Your task to perform on an android device: Open the map Image 0: 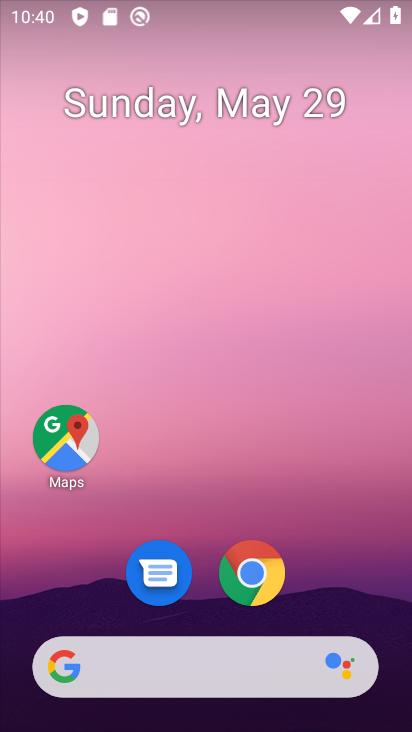
Step 0: click (68, 441)
Your task to perform on an android device: Open the map Image 1: 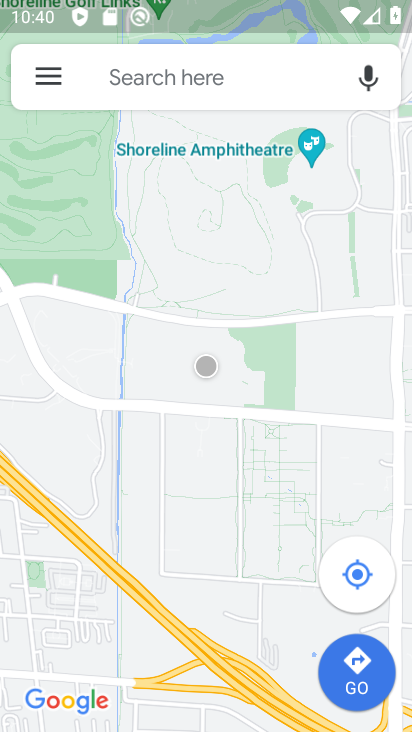
Step 1: task complete